Your task to perform on an android device: Open accessibility settings Image 0: 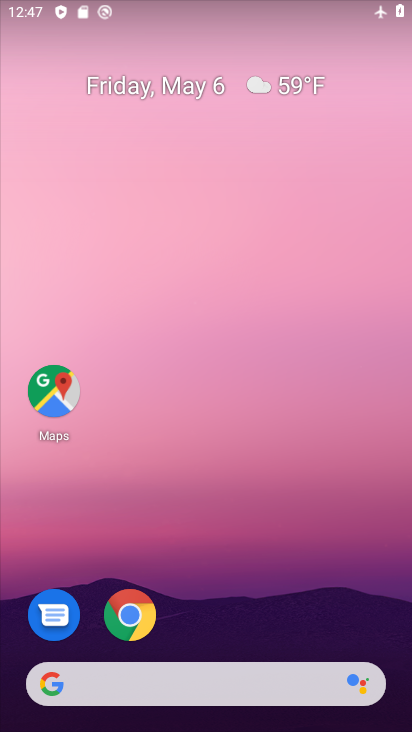
Step 0: drag from (314, 555) to (341, 31)
Your task to perform on an android device: Open accessibility settings Image 1: 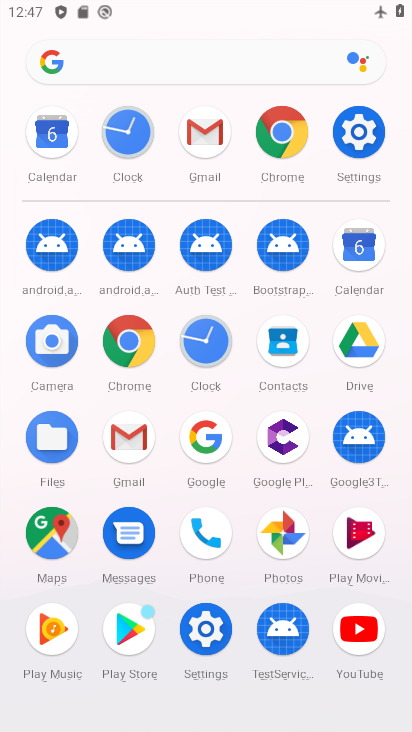
Step 1: click (354, 120)
Your task to perform on an android device: Open accessibility settings Image 2: 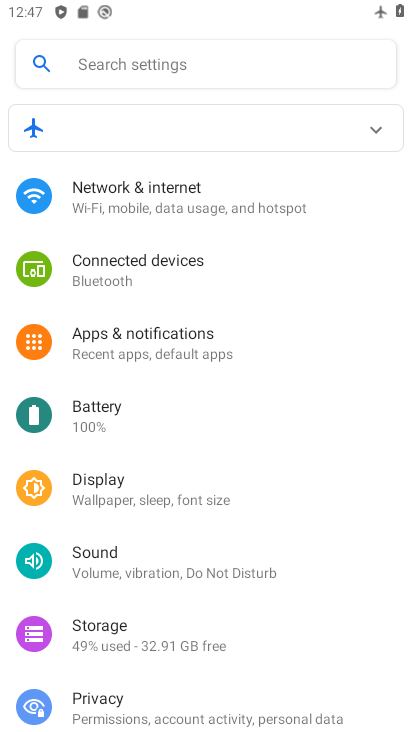
Step 2: drag from (276, 512) to (338, 72)
Your task to perform on an android device: Open accessibility settings Image 3: 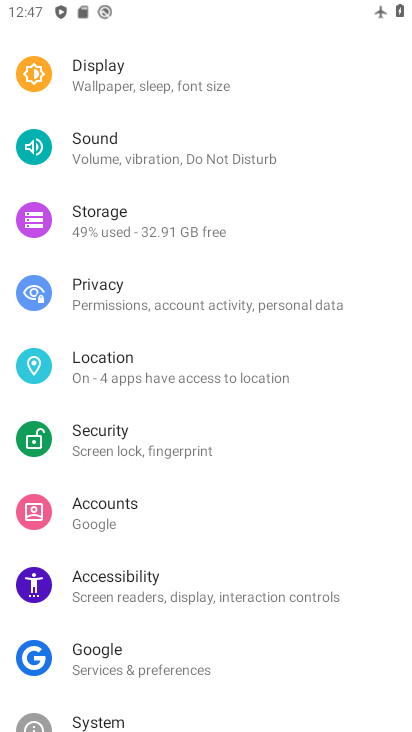
Step 3: click (132, 585)
Your task to perform on an android device: Open accessibility settings Image 4: 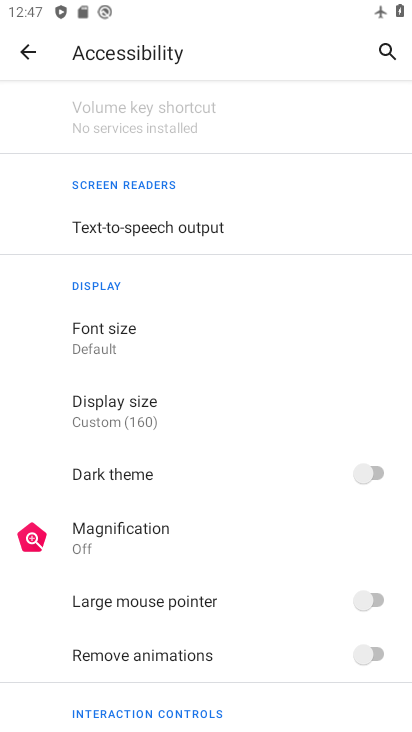
Step 4: task complete